Your task to perform on an android device: toggle wifi Image 0: 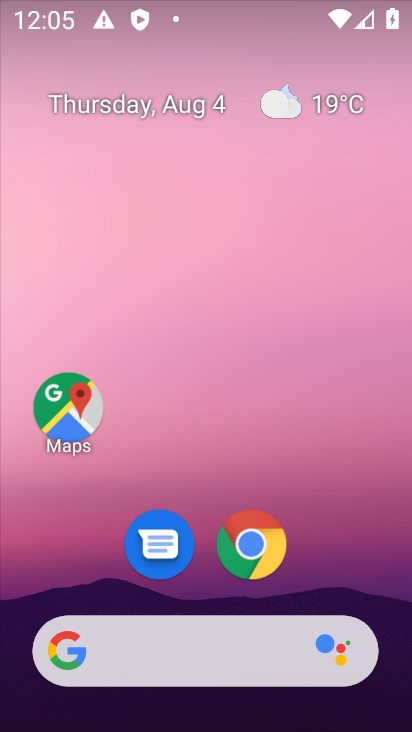
Step 0: drag from (386, 700) to (309, 121)
Your task to perform on an android device: toggle wifi Image 1: 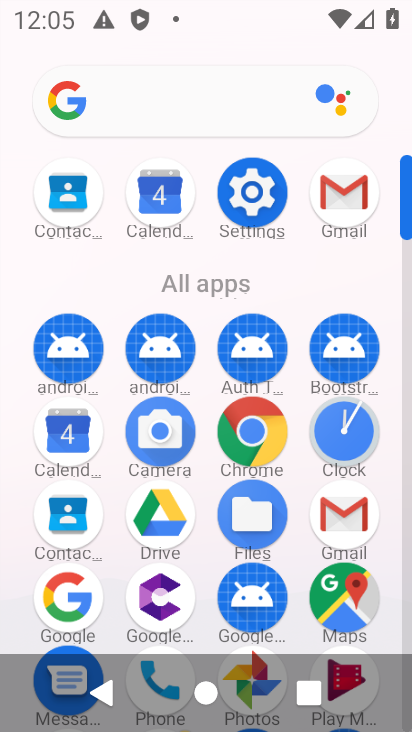
Step 1: click (255, 205)
Your task to perform on an android device: toggle wifi Image 2: 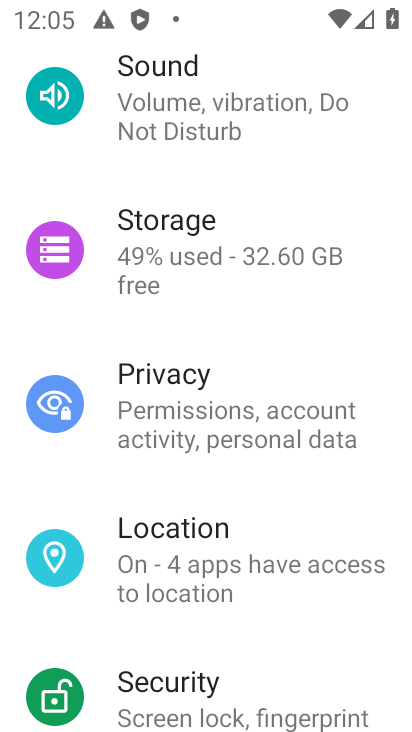
Step 2: drag from (333, 190) to (330, 535)
Your task to perform on an android device: toggle wifi Image 3: 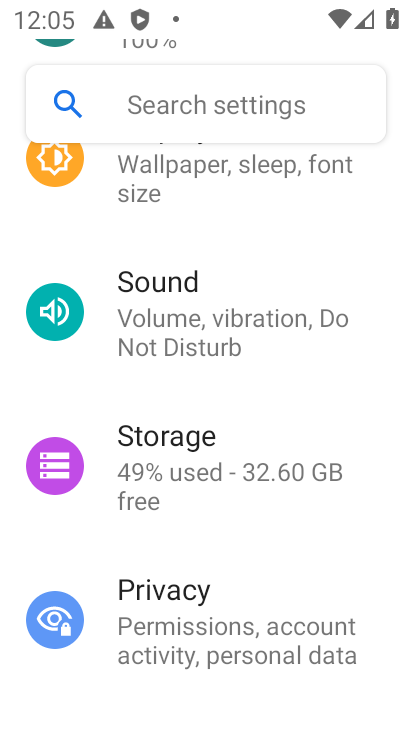
Step 3: drag from (307, 241) to (317, 586)
Your task to perform on an android device: toggle wifi Image 4: 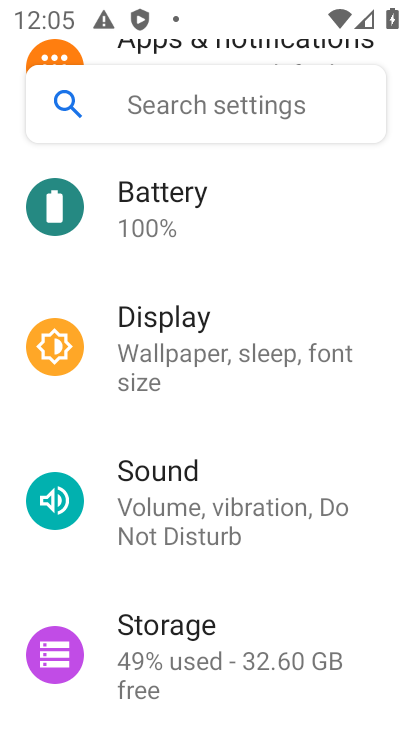
Step 4: drag from (294, 344) to (319, 581)
Your task to perform on an android device: toggle wifi Image 5: 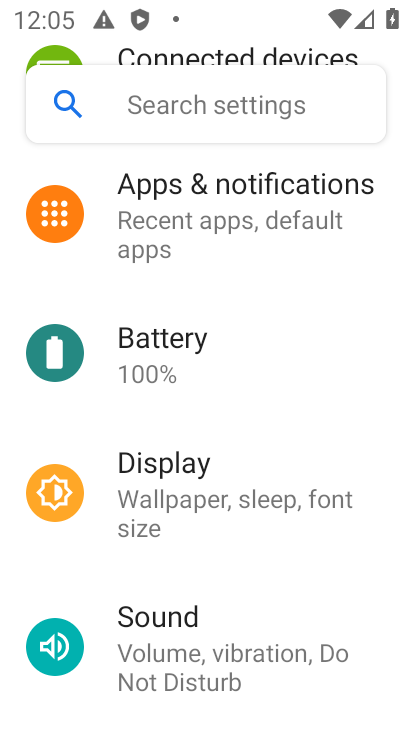
Step 5: drag from (252, 183) to (266, 586)
Your task to perform on an android device: toggle wifi Image 6: 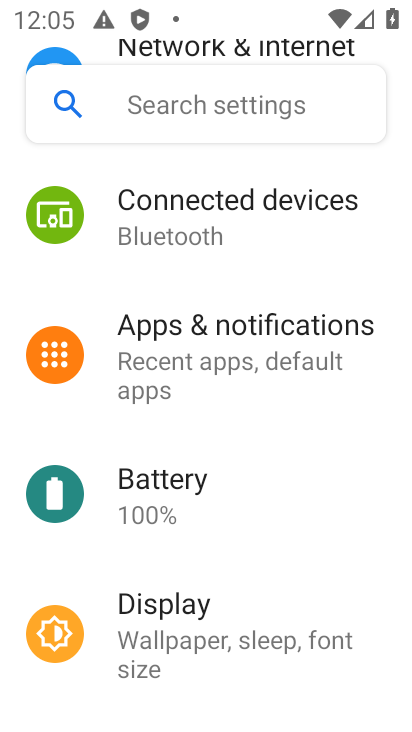
Step 6: click (261, 49)
Your task to perform on an android device: toggle wifi Image 7: 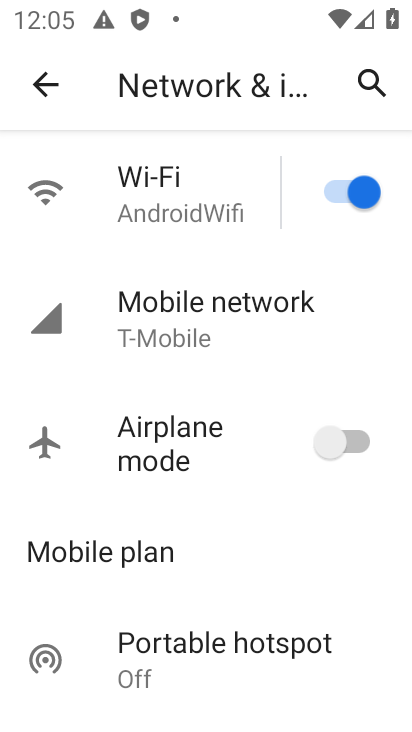
Step 7: click (343, 181)
Your task to perform on an android device: toggle wifi Image 8: 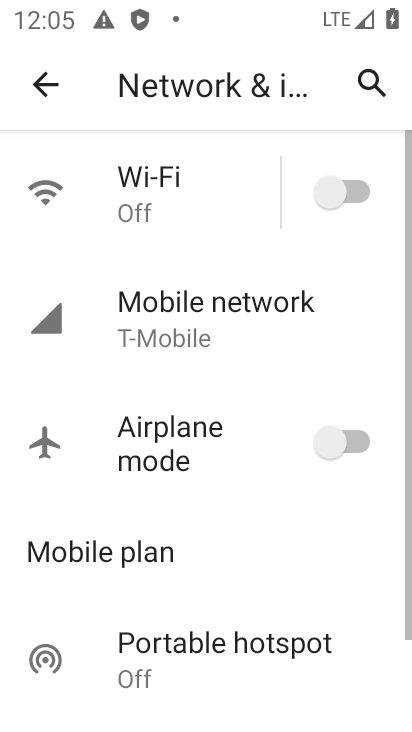
Step 8: task complete